Your task to perform on an android device: Show me recent news Image 0: 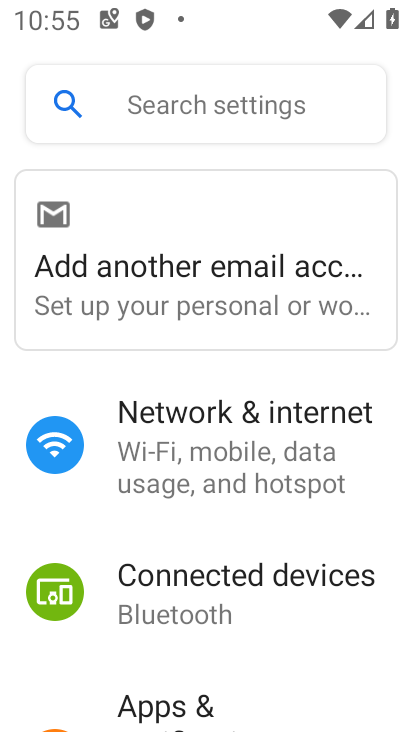
Step 0: press home button
Your task to perform on an android device: Show me recent news Image 1: 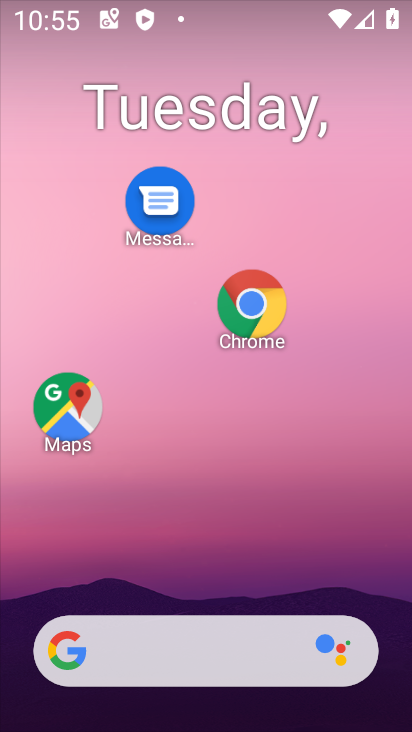
Step 1: click (240, 290)
Your task to perform on an android device: Show me recent news Image 2: 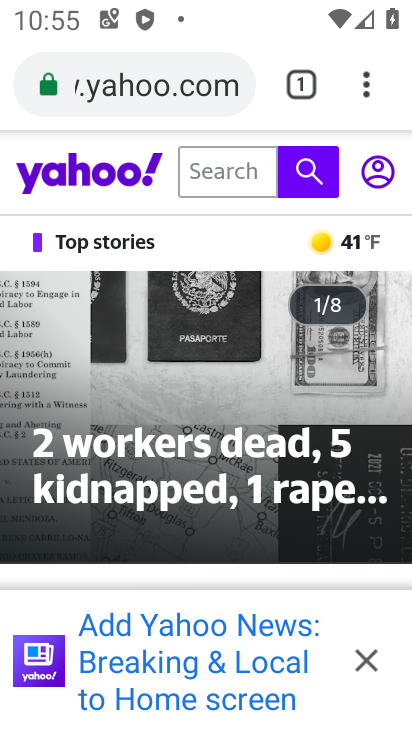
Step 2: click (353, 89)
Your task to perform on an android device: Show me recent news Image 3: 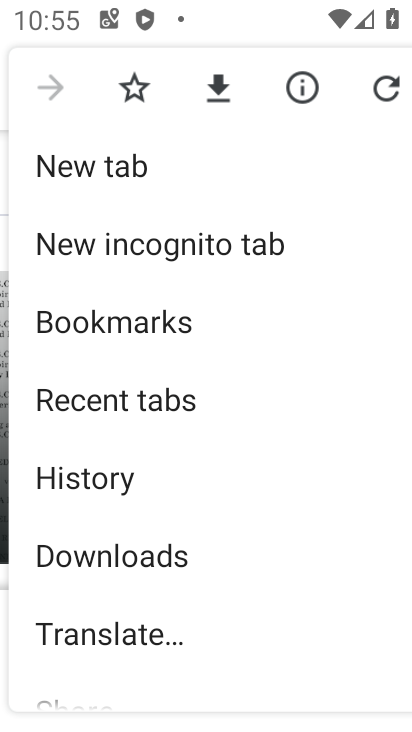
Step 3: click (184, 184)
Your task to perform on an android device: Show me recent news Image 4: 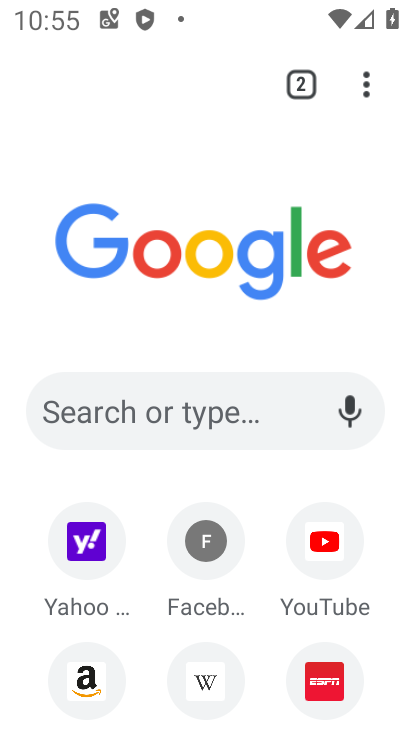
Step 4: click (234, 410)
Your task to perform on an android device: Show me recent news Image 5: 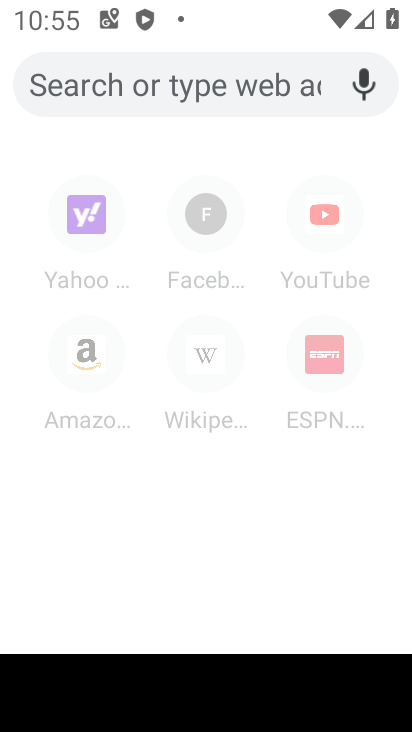
Step 5: drag from (224, 689) to (88, 538)
Your task to perform on an android device: Show me recent news Image 6: 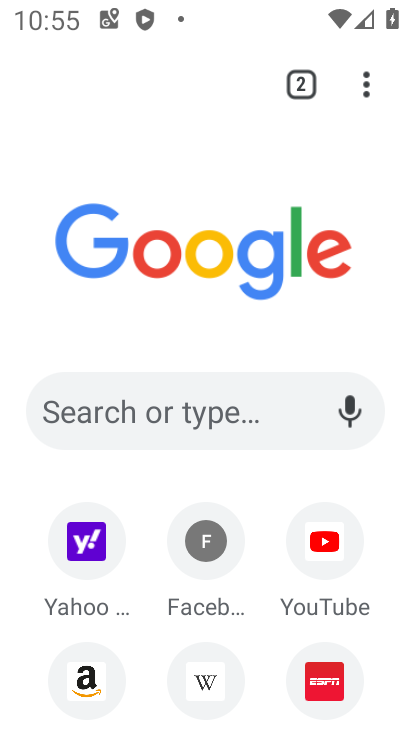
Step 6: click (227, 85)
Your task to perform on an android device: Show me recent news Image 7: 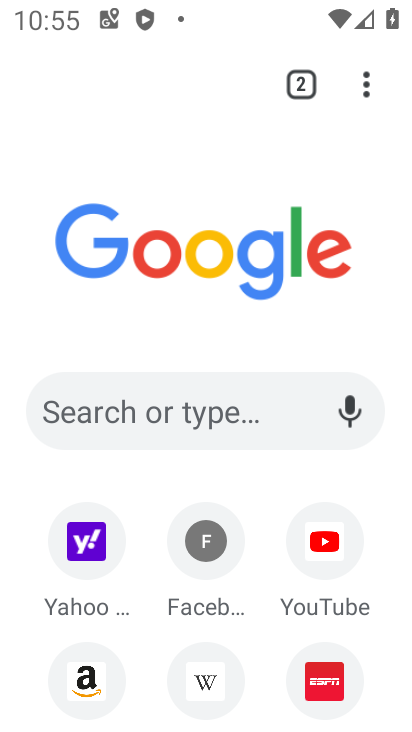
Step 7: click (211, 396)
Your task to perform on an android device: Show me recent news Image 8: 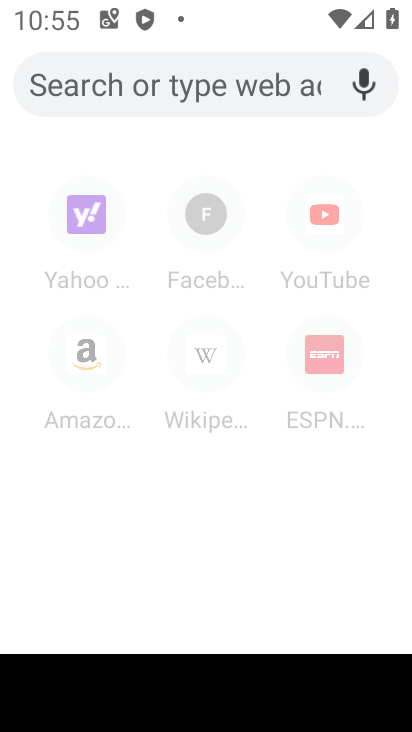
Step 8: type "Show me recent news"
Your task to perform on an android device: Show me recent news Image 9: 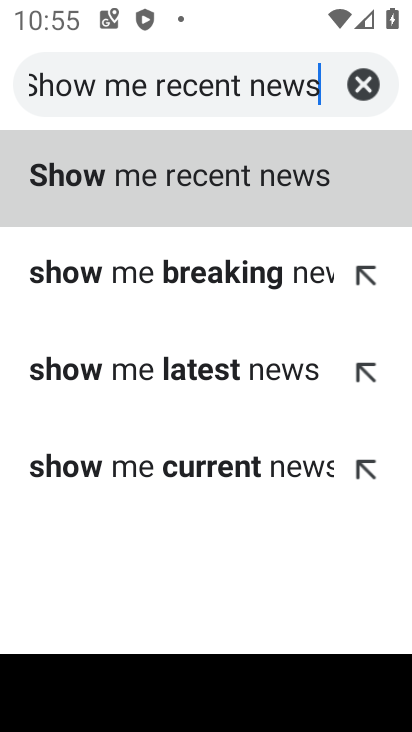
Step 9: click (107, 174)
Your task to perform on an android device: Show me recent news Image 10: 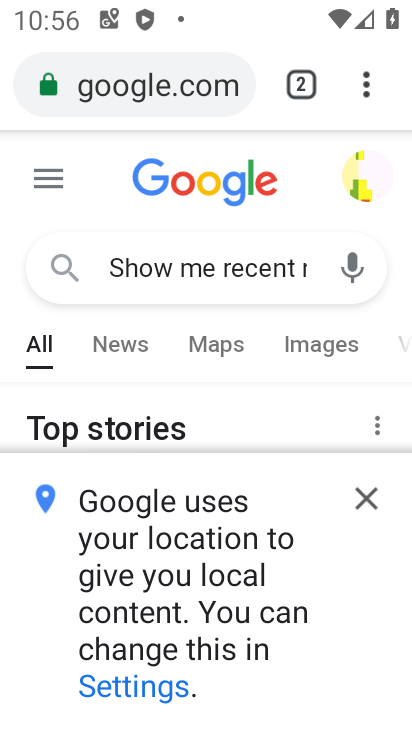
Step 10: click (378, 467)
Your task to perform on an android device: Show me recent news Image 11: 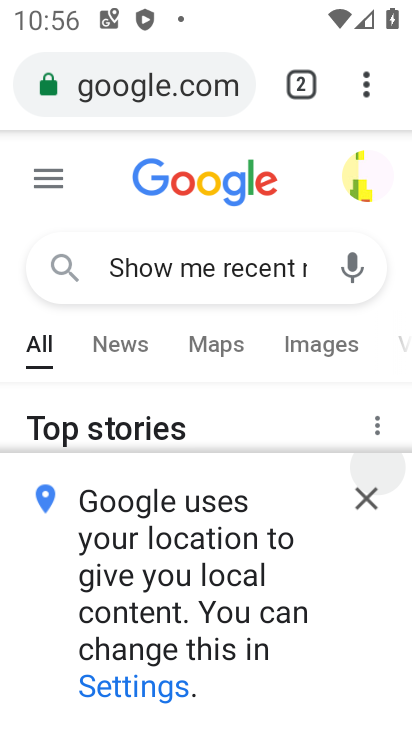
Step 11: click (370, 486)
Your task to perform on an android device: Show me recent news Image 12: 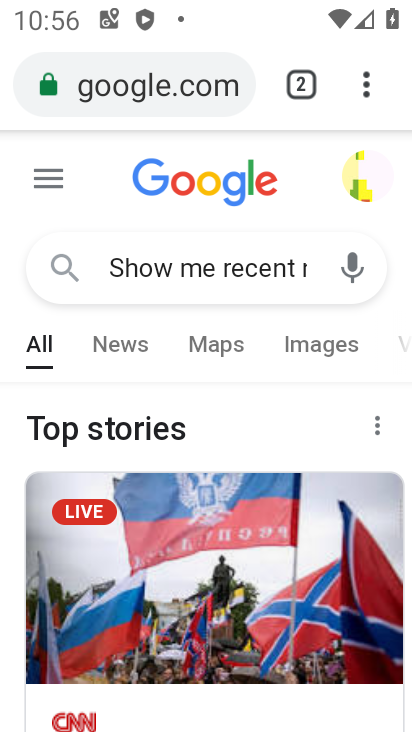
Step 12: task complete